Your task to perform on an android device: Open CNN.com Image 0: 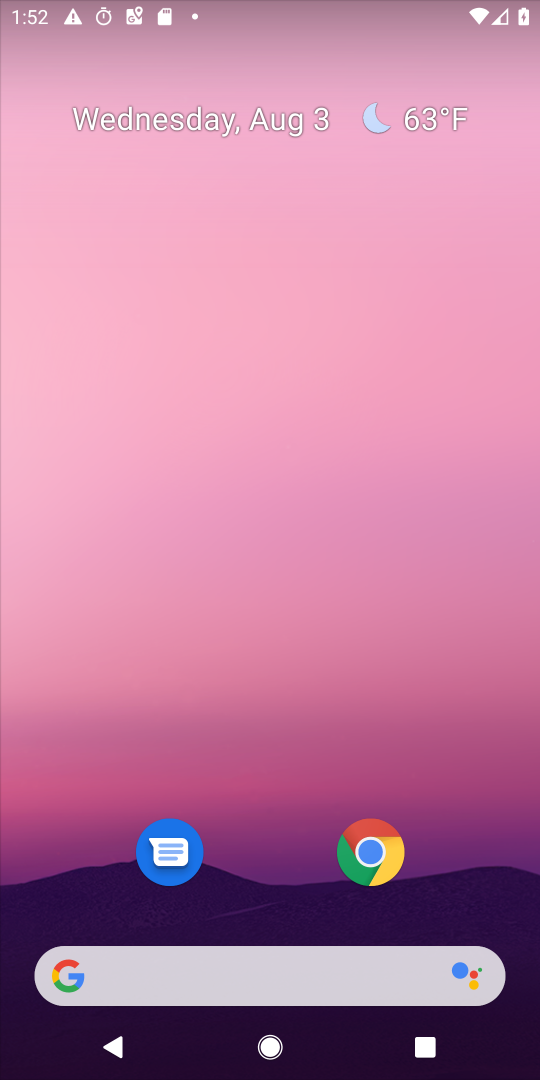
Step 0: drag from (477, 906) to (225, 97)
Your task to perform on an android device: Open CNN.com Image 1: 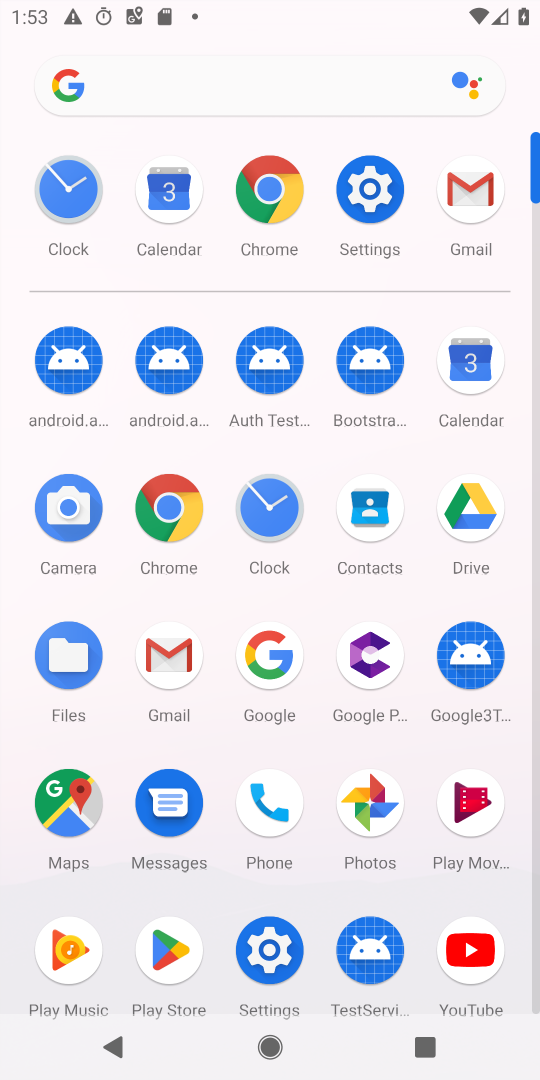
Step 1: click (269, 650)
Your task to perform on an android device: Open CNN.com Image 2: 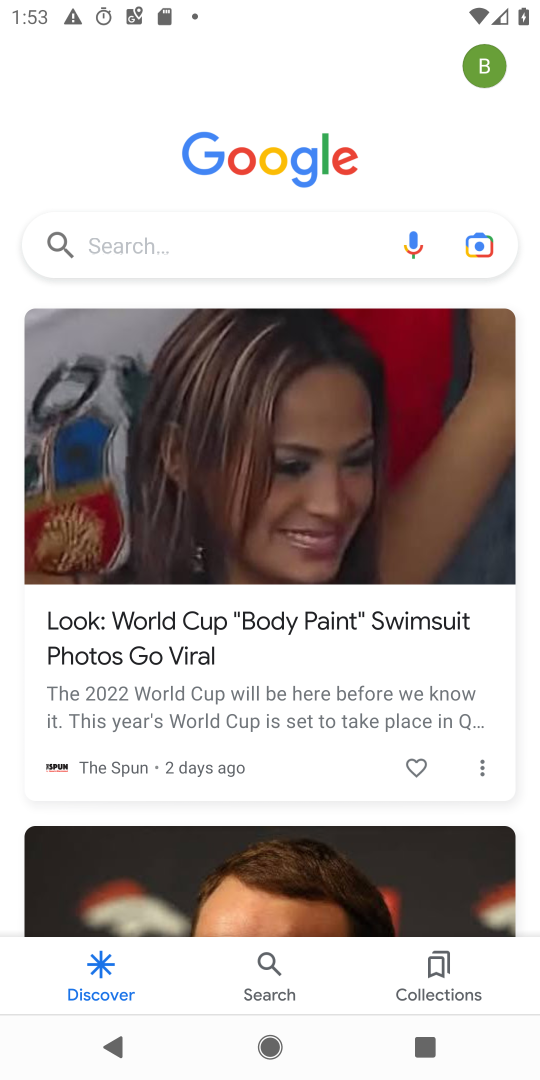
Step 2: click (94, 238)
Your task to perform on an android device: Open CNN.com Image 3: 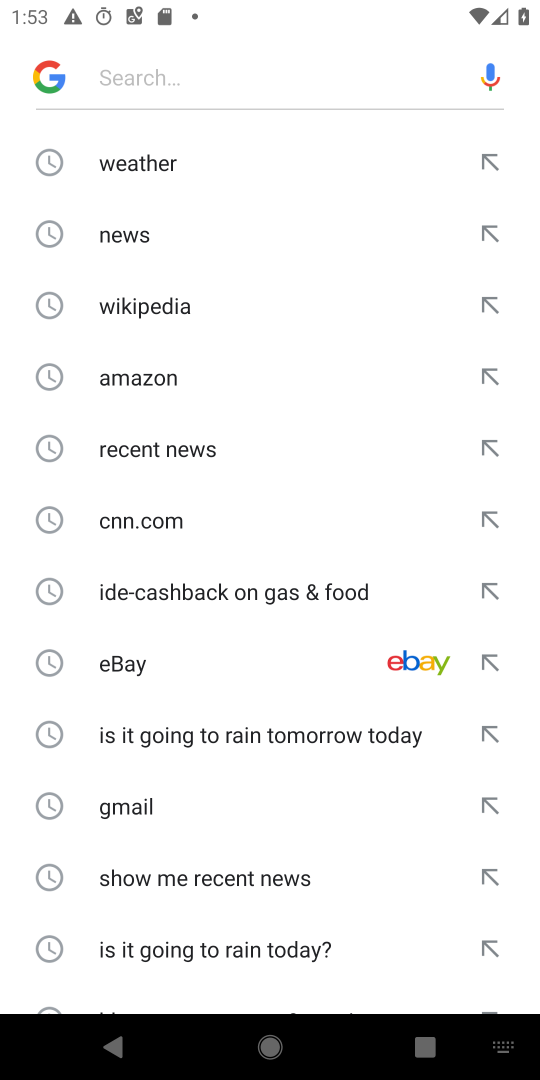
Step 3: type "CNN.com"
Your task to perform on an android device: Open CNN.com Image 4: 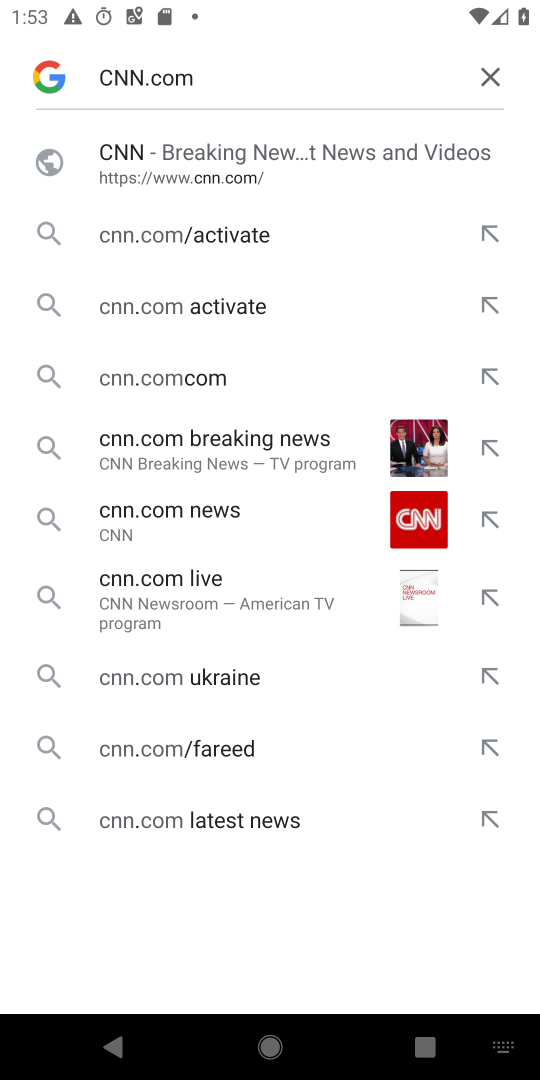
Step 4: click (140, 184)
Your task to perform on an android device: Open CNN.com Image 5: 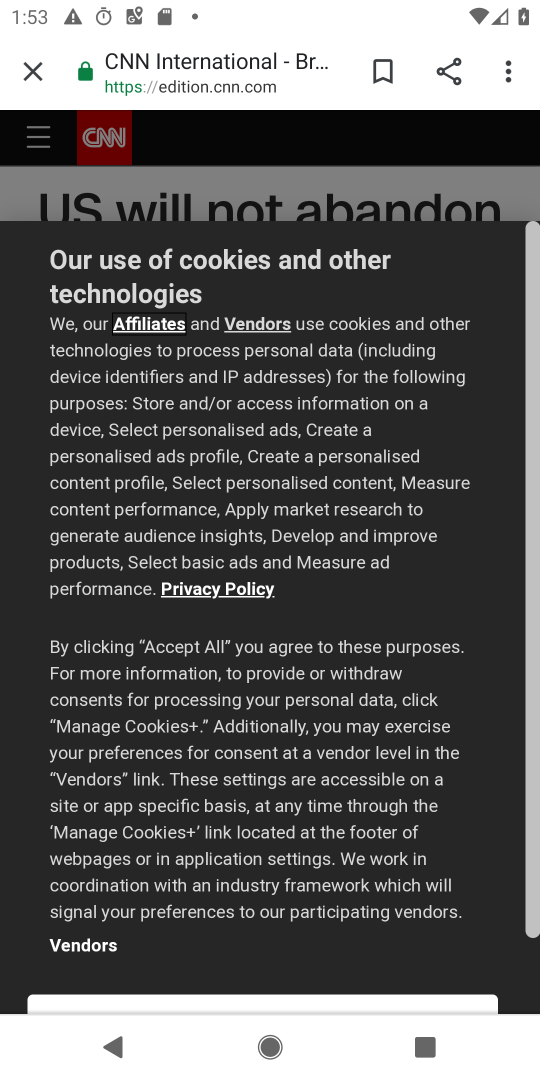
Step 5: task complete